Your task to perform on an android device: check data usage Image 0: 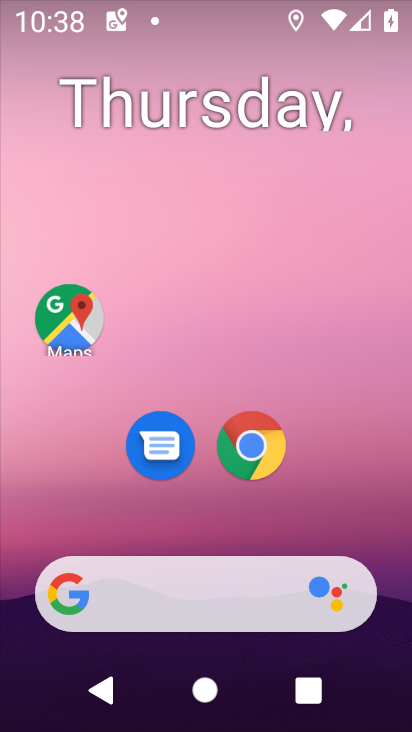
Step 0: drag from (401, 616) to (256, 24)
Your task to perform on an android device: check data usage Image 1: 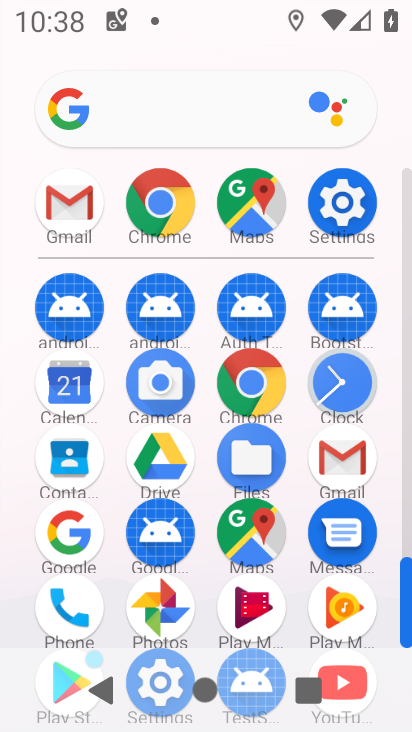
Step 1: click (332, 212)
Your task to perform on an android device: check data usage Image 2: 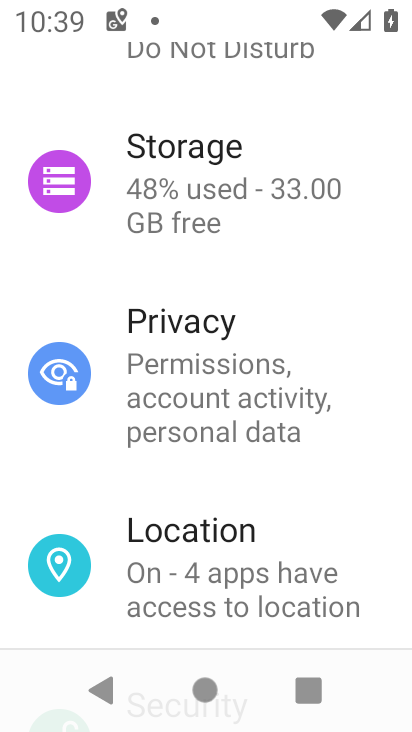
Step 2: drag from (232, 202) to (209, 612)
Your task to perform on an android device: check data usage Image 3: 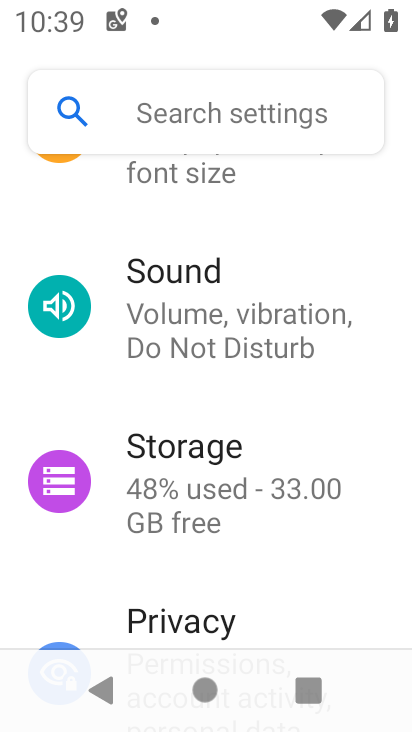
Step 3: drag from (219, 290) to (240, 626)
Your task to perform on an android device: check data usage Image 4: 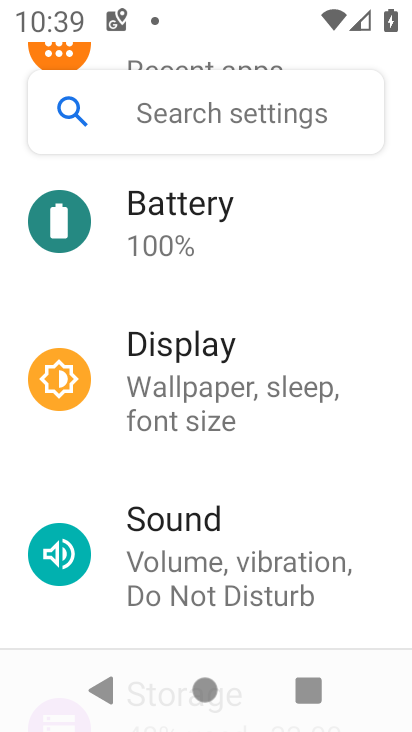
Step 4: drag from (184, 294) to (199, 581)
Your task to perform on an android device: check data usage Image 5: 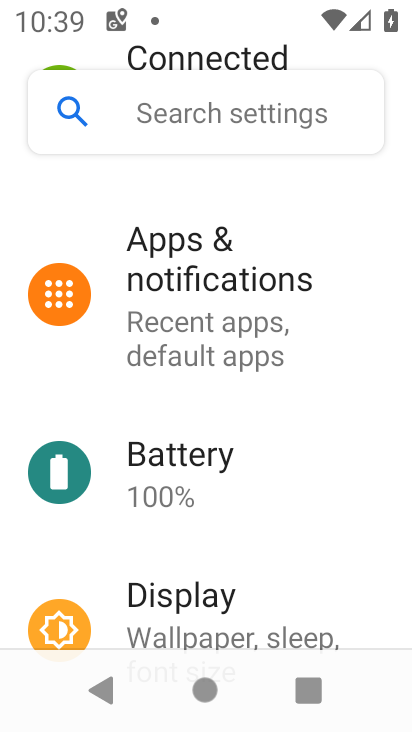
Step 5: drag from (198, 296) to (185, 673)
Your task to perform on an android device: check data usage Image 6: 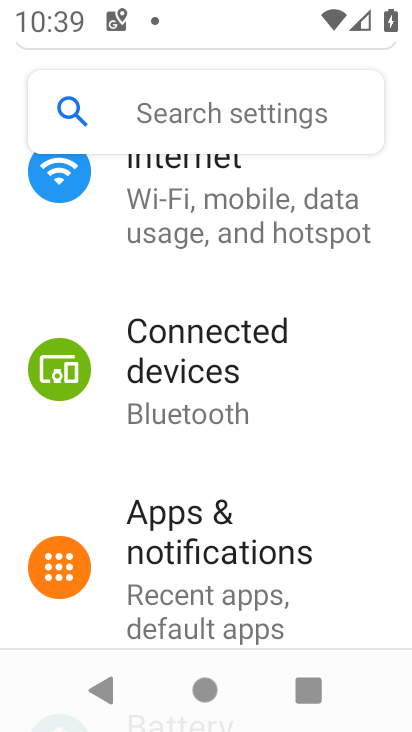
Step 6: click (151, 223)
Your task to perform on an android device: check data usage Image 7: 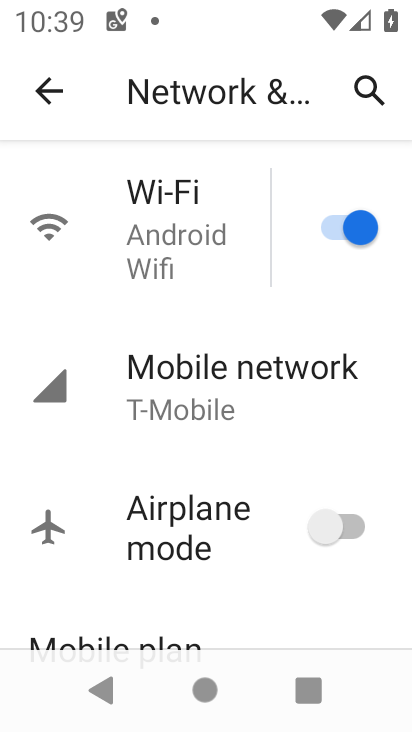
Step 7: drag from (180, 551) to (184, 75)
Your task to perform on an android device: check data usage Image 8: 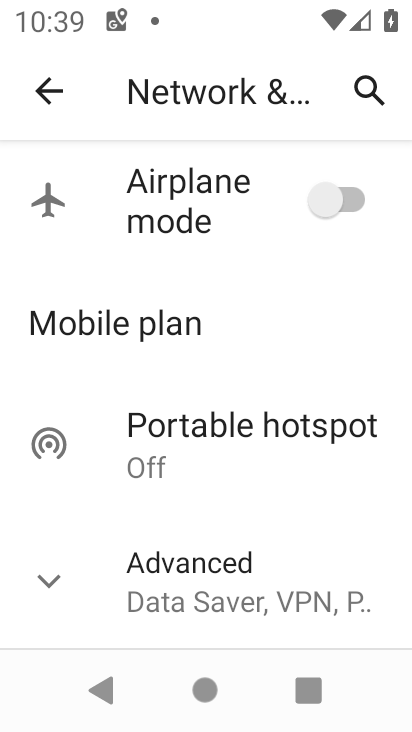
Step 8: drag from (251, 226) to (242, 646)
Your task to perform on an android device: check data usage Image 9: 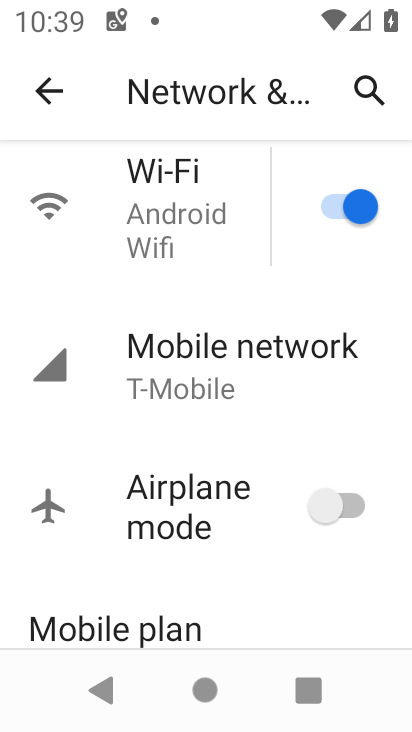
Step 9: click (207, 389)
Your task to perform on an android device: check data usage Image 10: 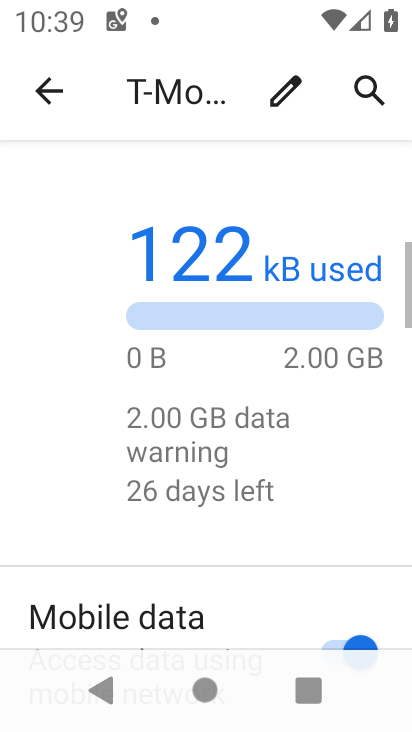
Step 10: drag from (167, 620) to (220, 104)
Your task to perform on an android device: check data usage Image 11: 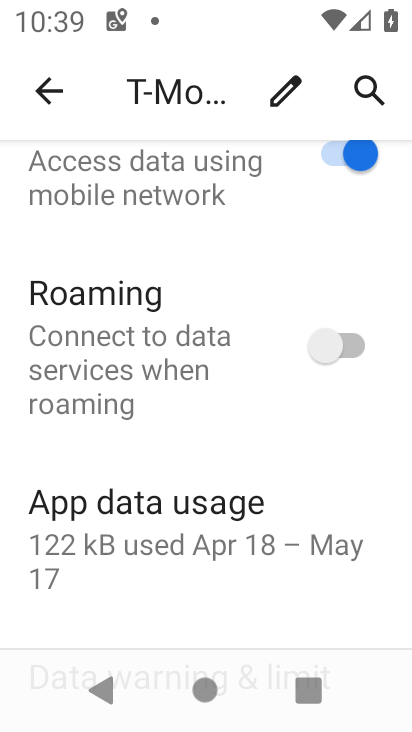
Step 11: click (201, 525)
Your task to perform on an android device: check data usage Image 12: 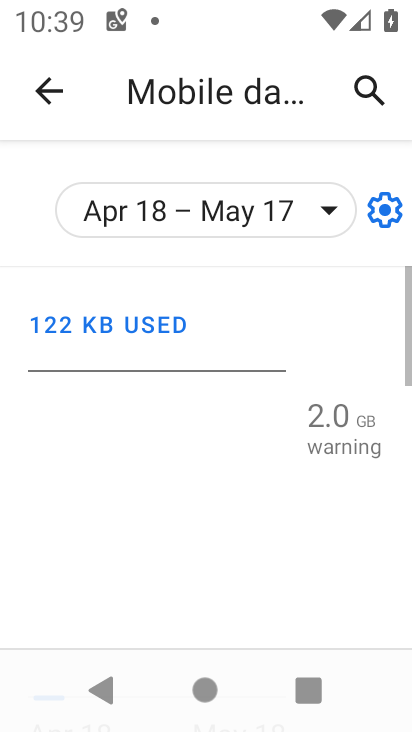
Step 12: task complete